Your task to perform on an android device: Search for Mexican restaurants on Maps Image 0: 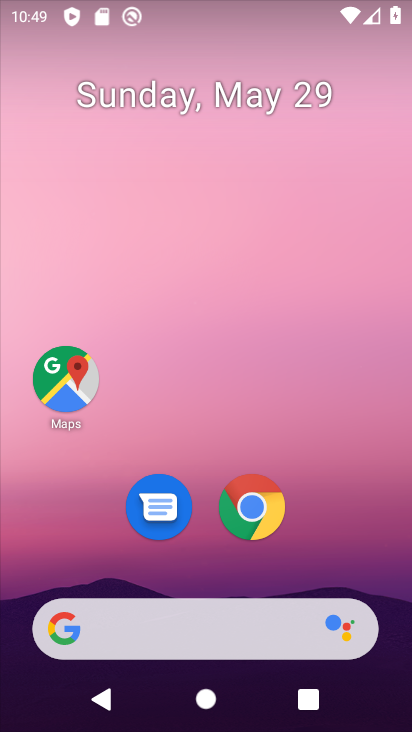
Step 0: click (45, 372)
Your task to perform on an android device: Search for Mexican restaurants on Maps Image 1: 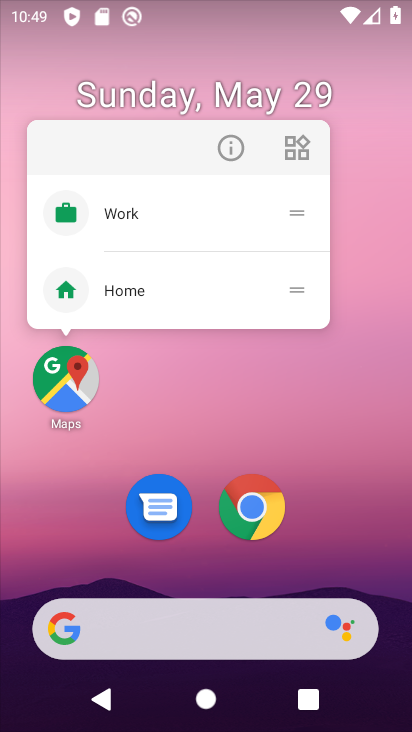
Step 1: click (80, 384)
Your task to perform on an android device: Search for Mexican restaurants on Maps Image 2: 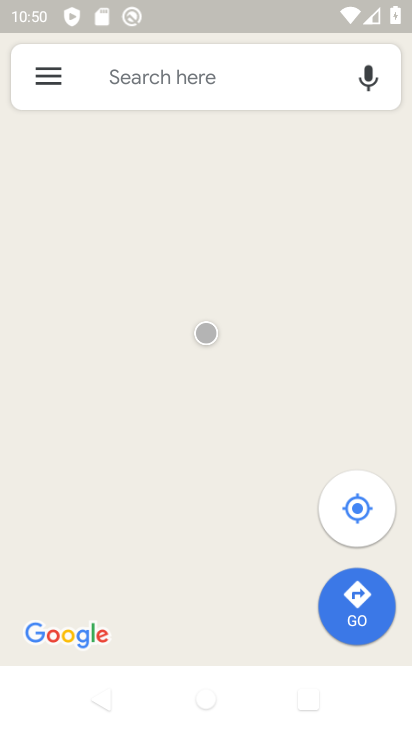
Step 2: click (162, 98)
Your task to perform on an android device: Search for Mexican restaurants on Maps Image 3: 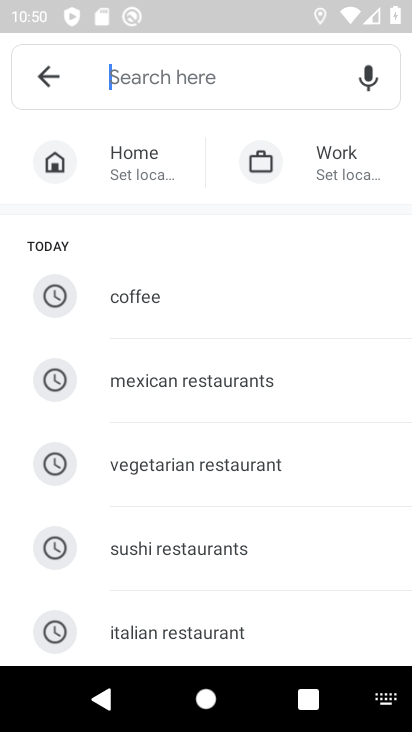
Step 3: click (194, 365)
Your task to perform on an android device: Search for Mexican restaurants on Maps Image 4: 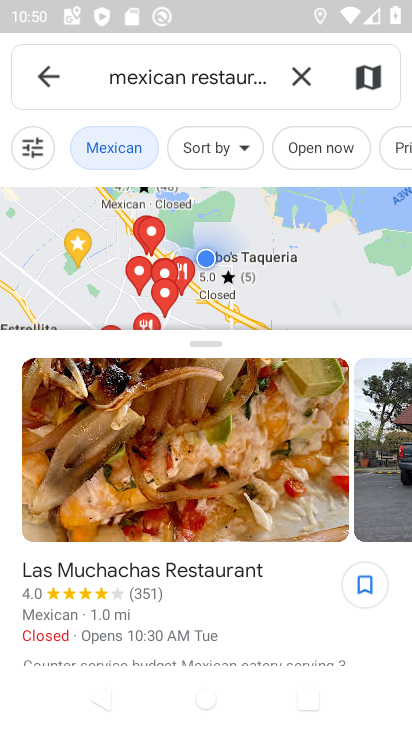
Step 4: task complete